Your task to perform on an android device: Search for Mexican restaurants on Maps Image 0: 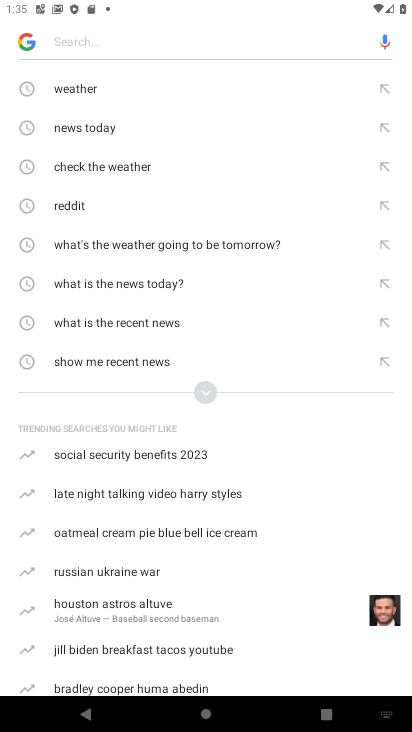
Step 0: press home button
Your task to perform on an android device: Search for Mexican restaurants on Maps Image 1: 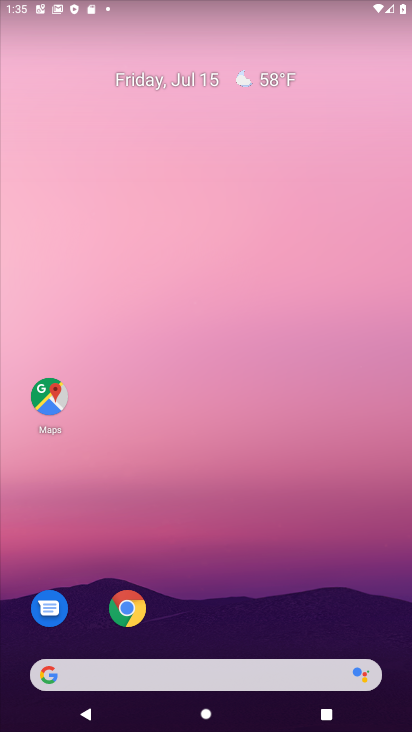
Step 1: drag from (264, 615) to (336, 120)
Your task to perform on an android device: Search for Mexican restaurants on Maps Image 2: 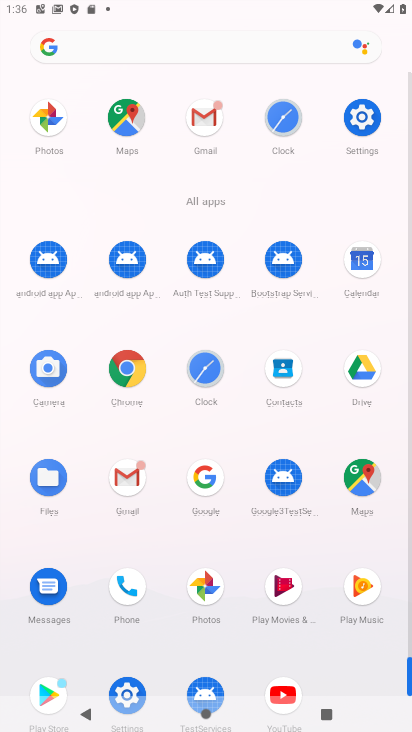
Step 2: click (367, 469)
Your task to perform on an android device: Search for Mexican restaurants on Maps Image 3: 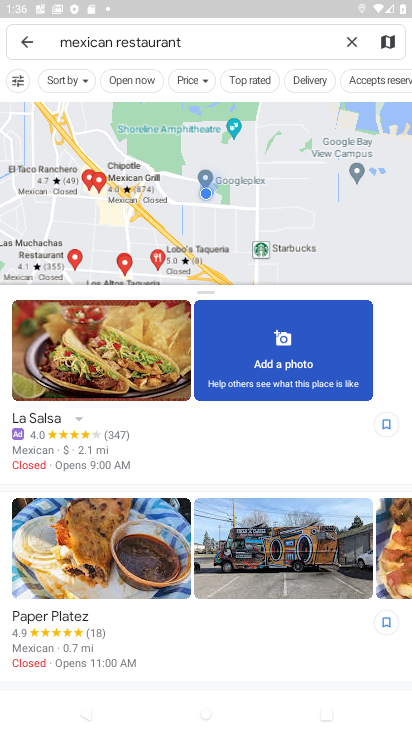
Step 3: task complete